Your task to perform on an android device: change text size in settings app Image 0: 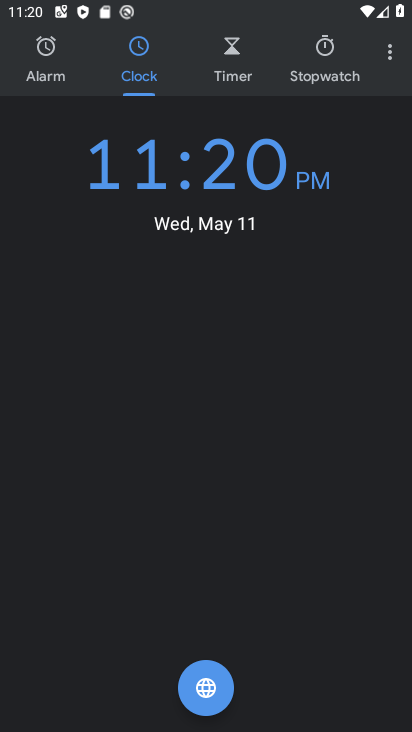
Step 0: press home button
Your task to perform on an android device: change text size in settings app Image 1: 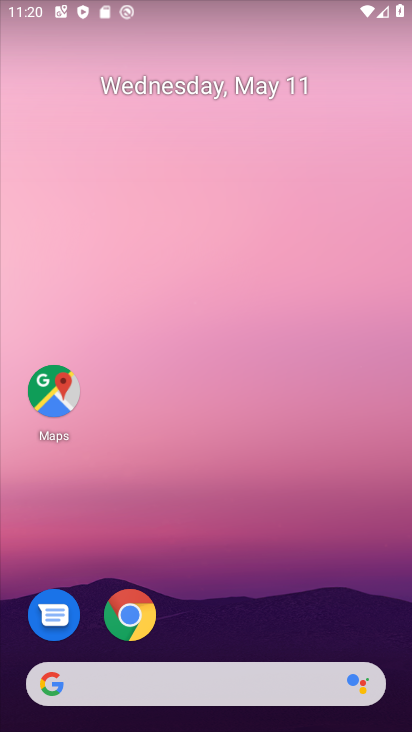
Step 1: drag from (195, 515) to (119, 38)
Your task to perform on an android device: change text size in settings app Image 2: 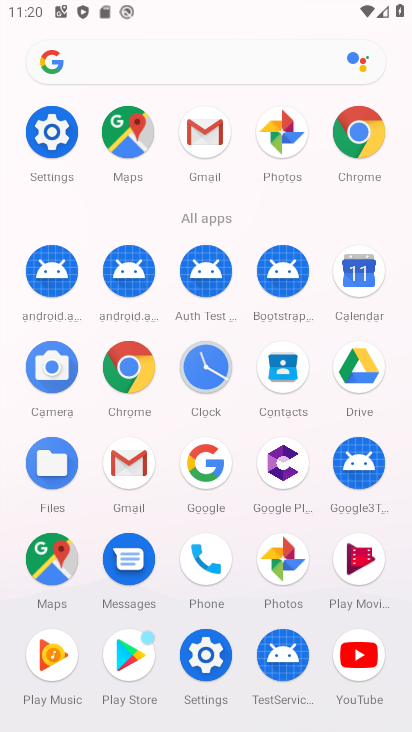
Step 2: click (50, 132)
Your task to perform on an android device: change text size in settings app Image 3: 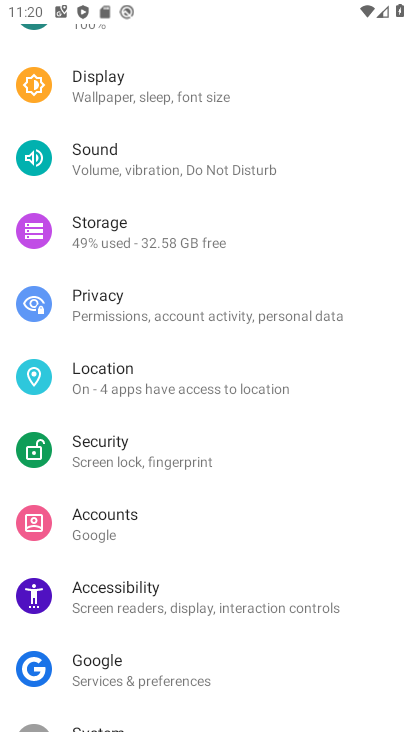
Step 3: click (96, 86)
Your task to perform on an android device: change text size in settings app Image 4: 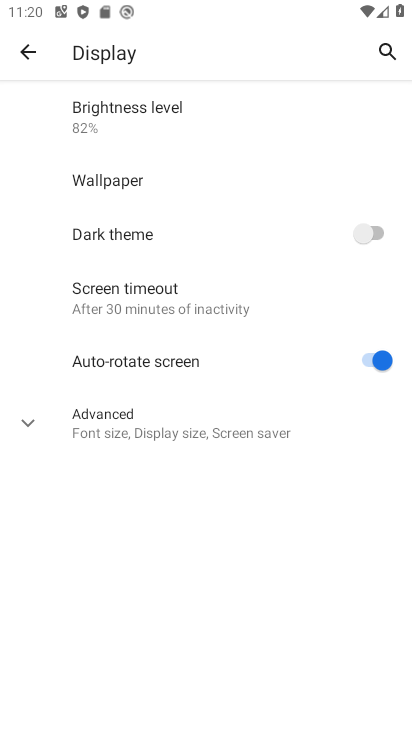
Step 4: click (72, 429)
Your task to perform on an android device: change text size in settings app Image 5: 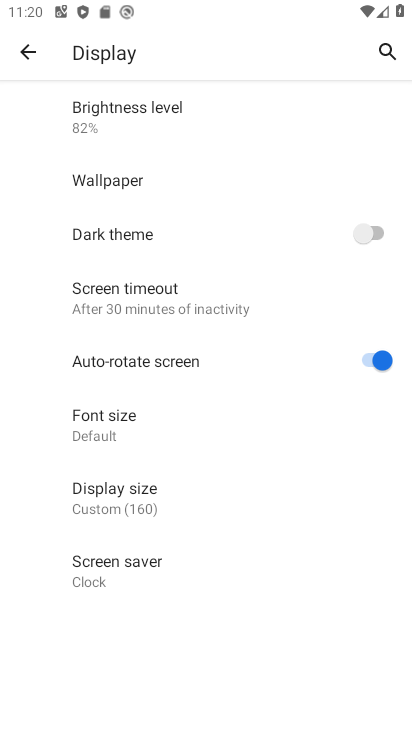
Step 5: click (111, 414)
Your task to perform on an android device: change text size in settings app Image 6: 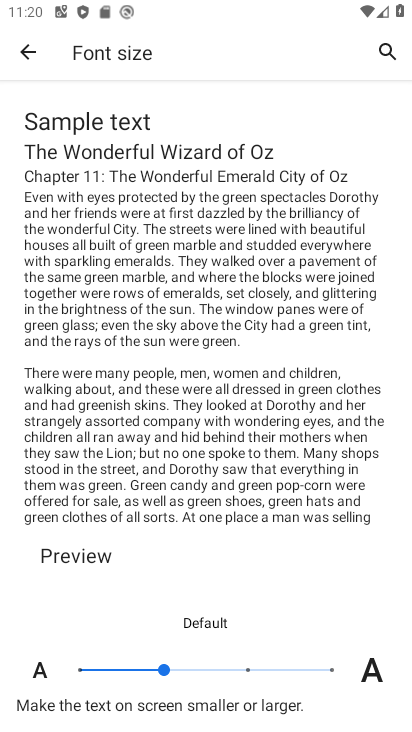
Step 6: click (244, 670)
Your task to perform on an android device: change text size in settings app Image 7: 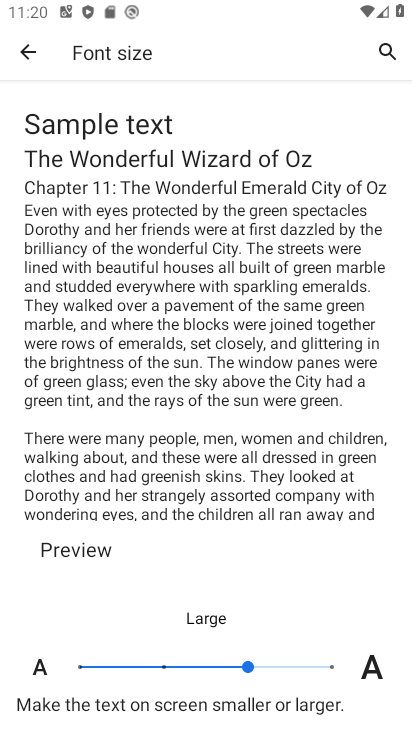
Step 7: task complete